Your task to perform on an android device: see tabs open on other devices in the chrome app Image 0: 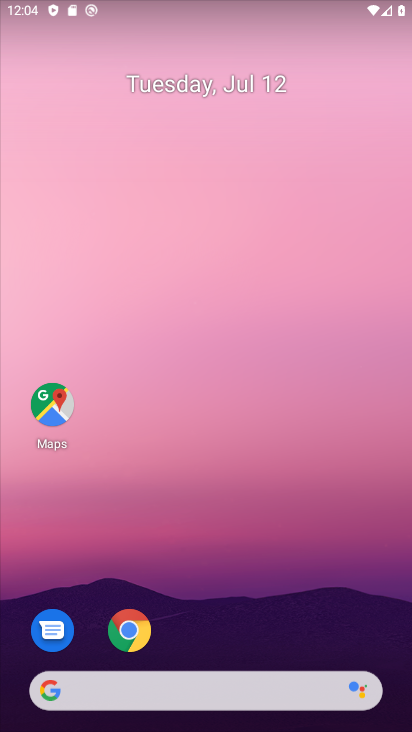
Step 0: click (134, 630)
Your task to perform on an android device: see tabs open on other devices in the chrome app Image 1: 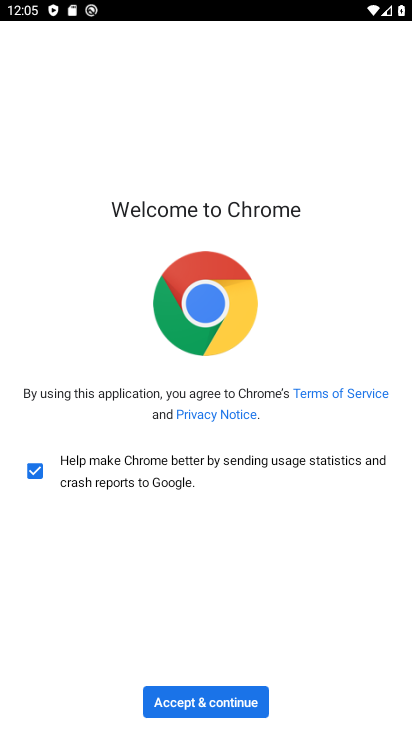
Step 1: click (183, 703)
Your task to perform on an android device: see tabs open on other devices in the chrome app Image 2: 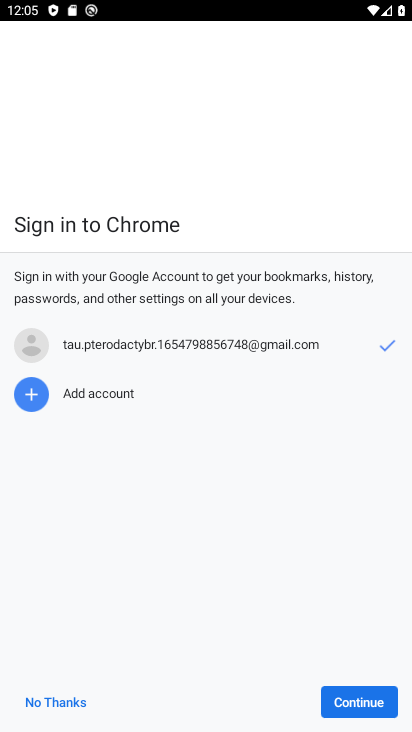
Step 2: click (367, 690)
Your task to perform on an android device: see tabs open on other devices in the chrome app Image 3: 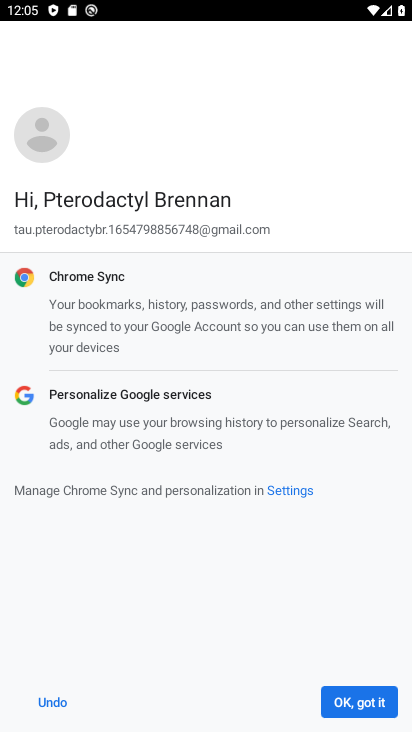
Step 3: click (367, 693)
Your task to perform on an android device: see tabs open on other devices in the chrome app Image 4: 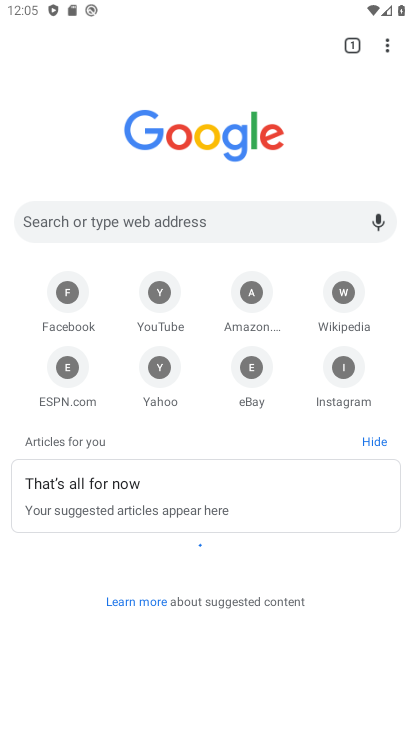
Step 4: click (386, 48)
Your task to perform on an android device: see tabs open on other devices in the chrome app Image 5: 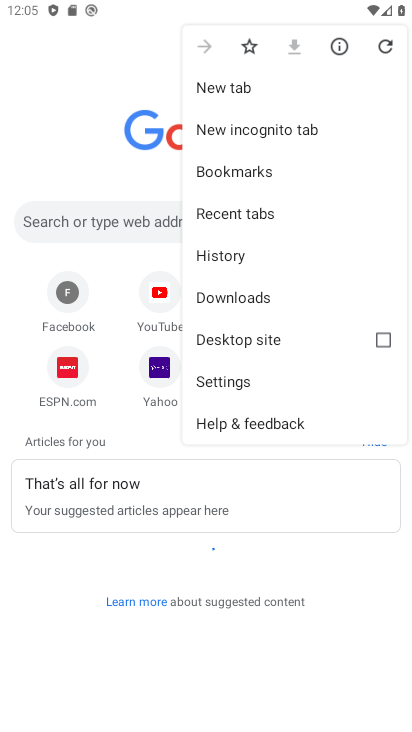
Step 5: click (242, 206)
Your task to perform on an android device: see tabs open on other devices in the chrome app Image 6: 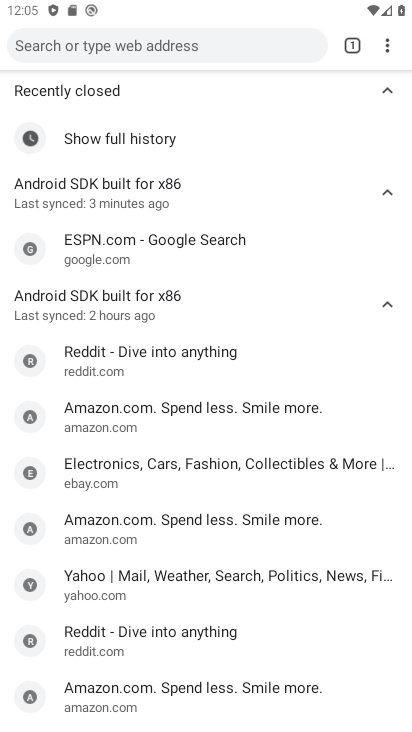
Step 6: task complete